Your task to perform on an android device: Open the stopwatch Image 0: 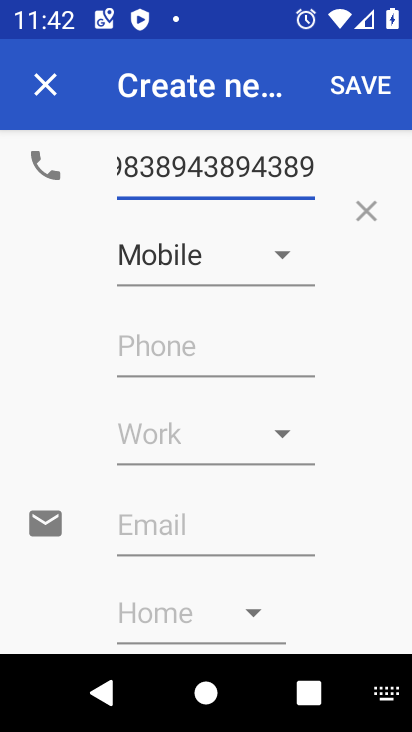
Step 0: press home button
Your task to perform on an android device: Open the stopwatch Image 1: 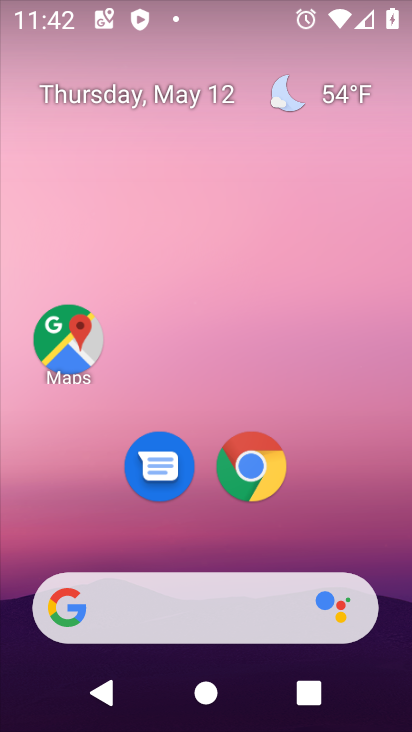
Step 1: drag from (360, 511) to (305, 101)
Your task to perform on an android device: Open the stopwatch Image 2: 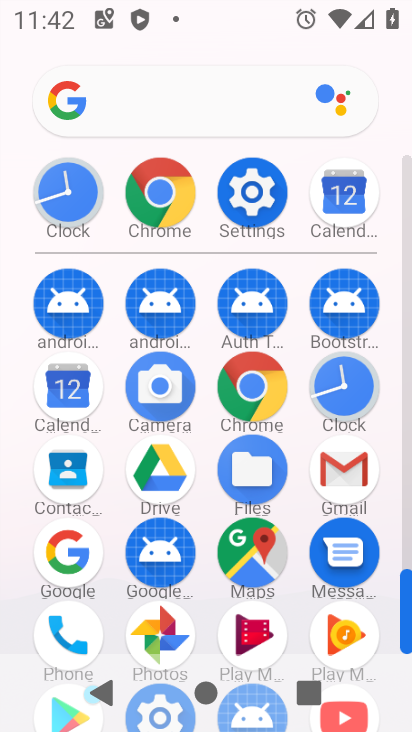
Step 2: click (358, 410)
Your task to perform on an android device: Open the stopwatch Image 3: 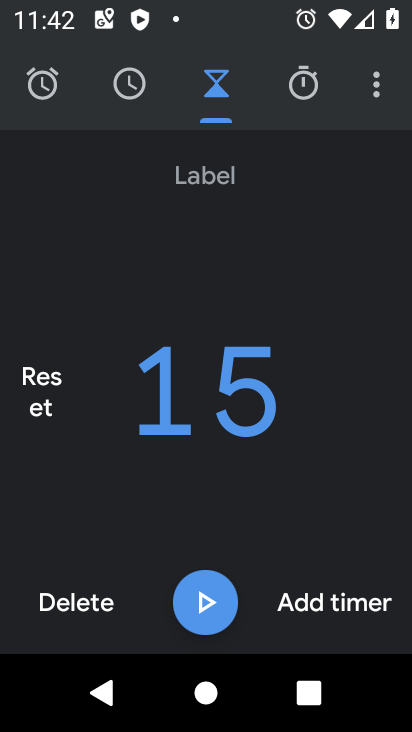
Step 3: click (296, 90)
Your task to perform on an android device: Open the stopwatch Image 4: 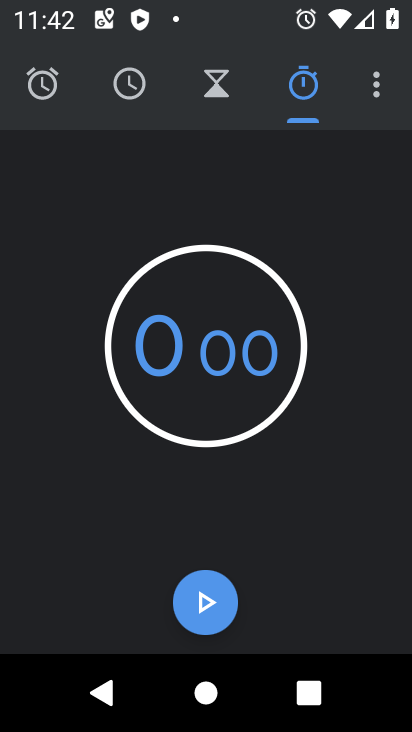
Step 4: click (199, 596)
Your task to perform on an android device: Open the stopwatch Image 5: 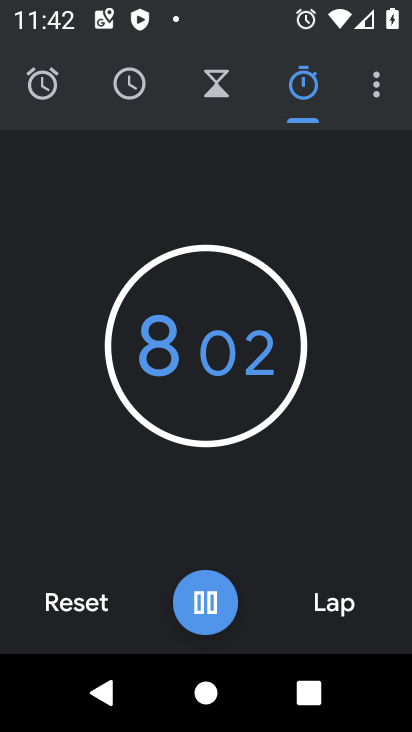
Step 5: click (208, 603)
Your task to perform on an android device: Open the stopwatch Image 6: 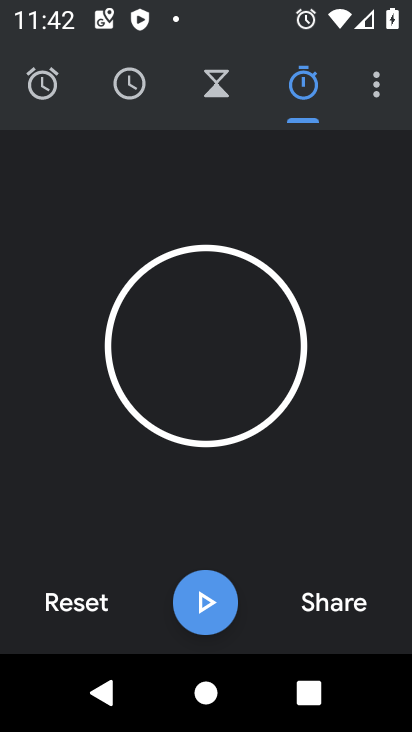
Step 6: task complete